Your task to perform on an android device: change the upload size in google photos Image 0: 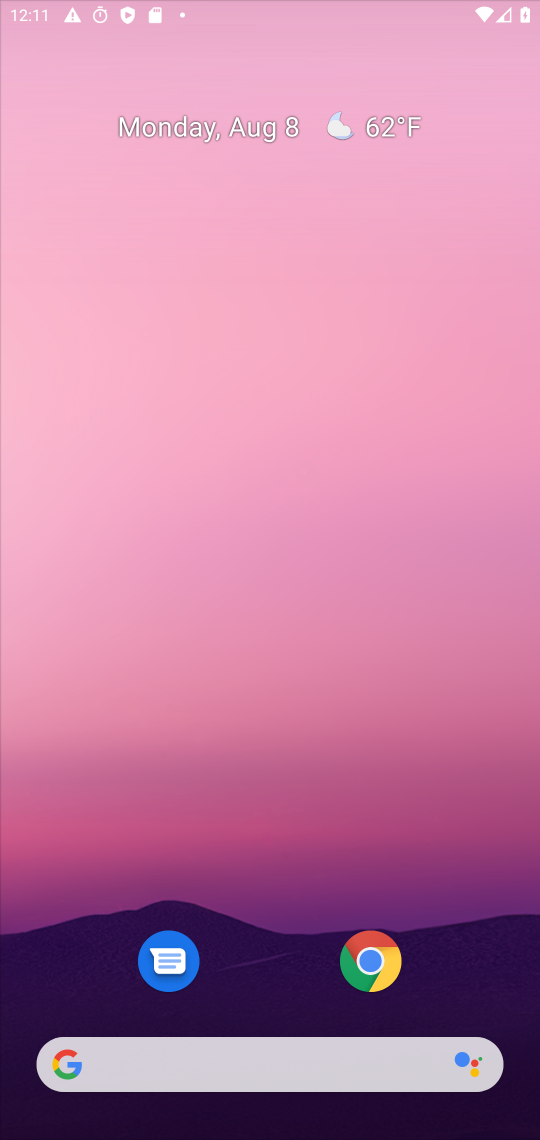
Step 0: press home button
Your task to perform on an android device: change the upload size in google photos Image 1: 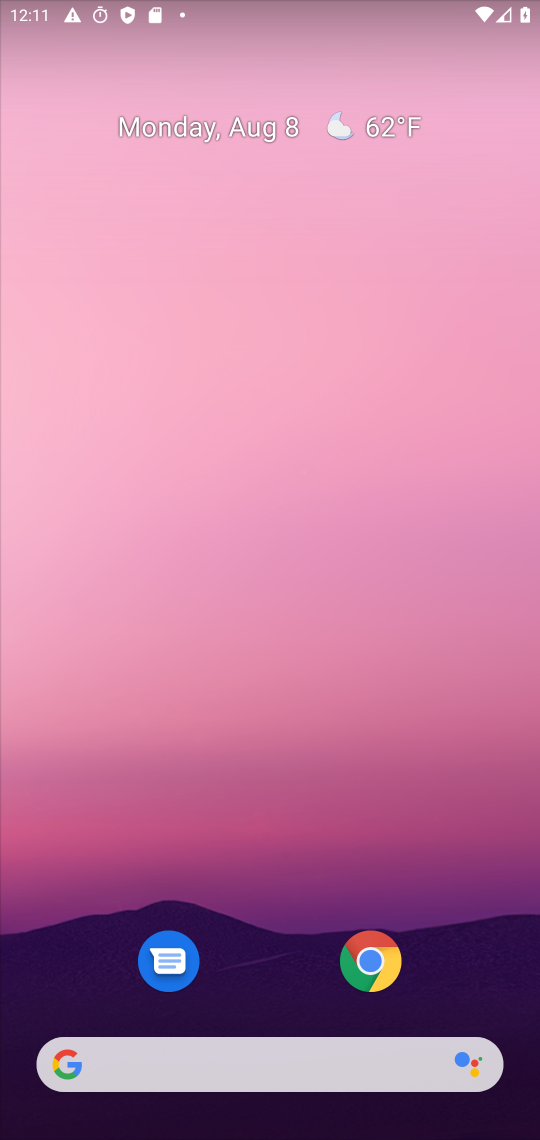
Step 1: drag from (219, 1067) to (317, 241)
Your task to perform on an android device: change the upload size in google photos Image 2: 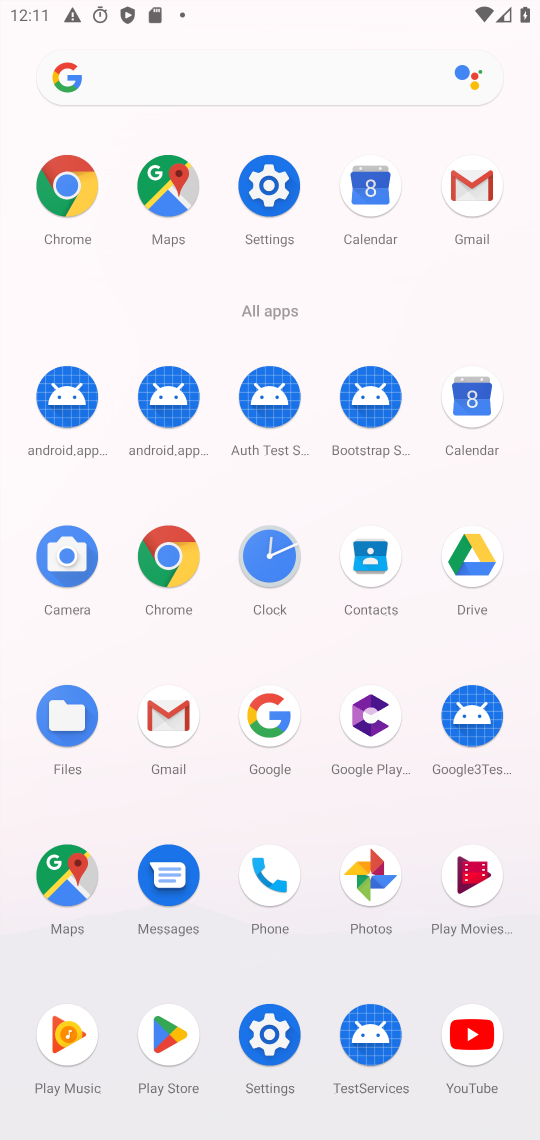
Step 2: click (370, 872)
Your task to perform on an android device: change the upload size in google photos Image 3: 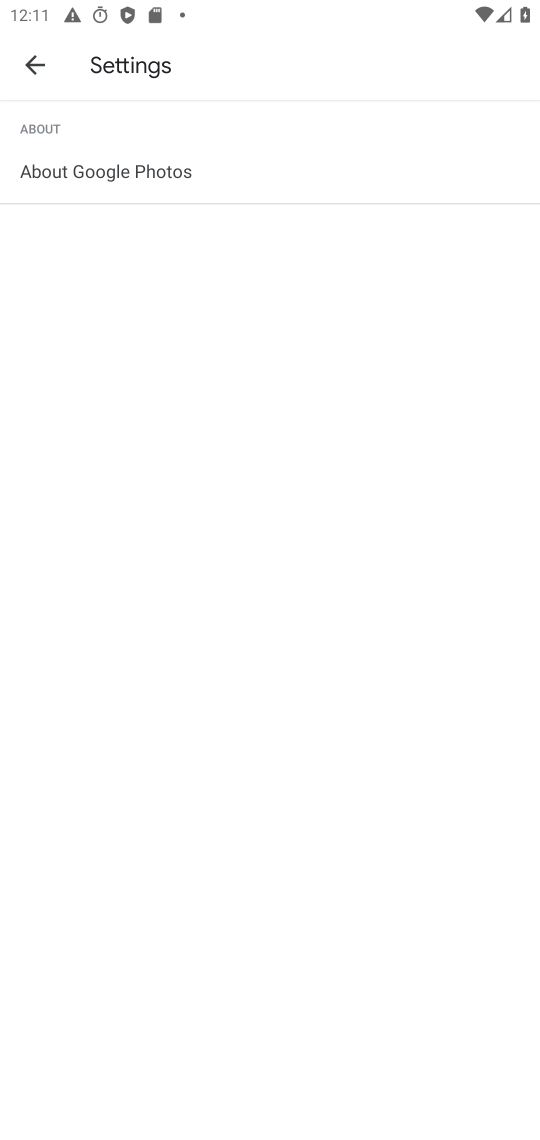
Step 3: press back button
Your task to perform on an android device: change the upload size in google photos Image 4: 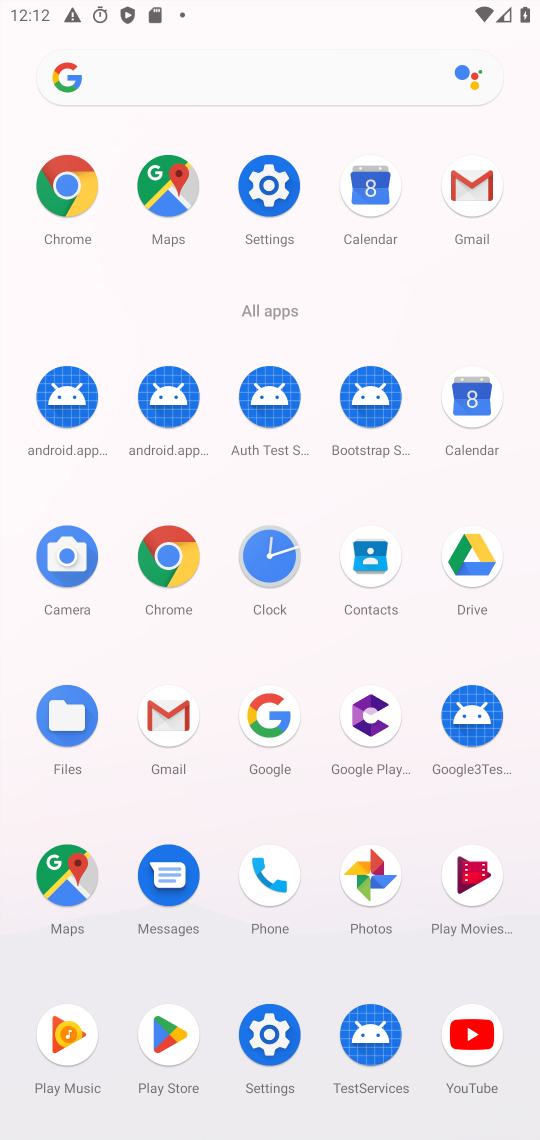
Step 4: click (365, 892)
Your task to perform on an android device: change the upload size in google photos Image 5: 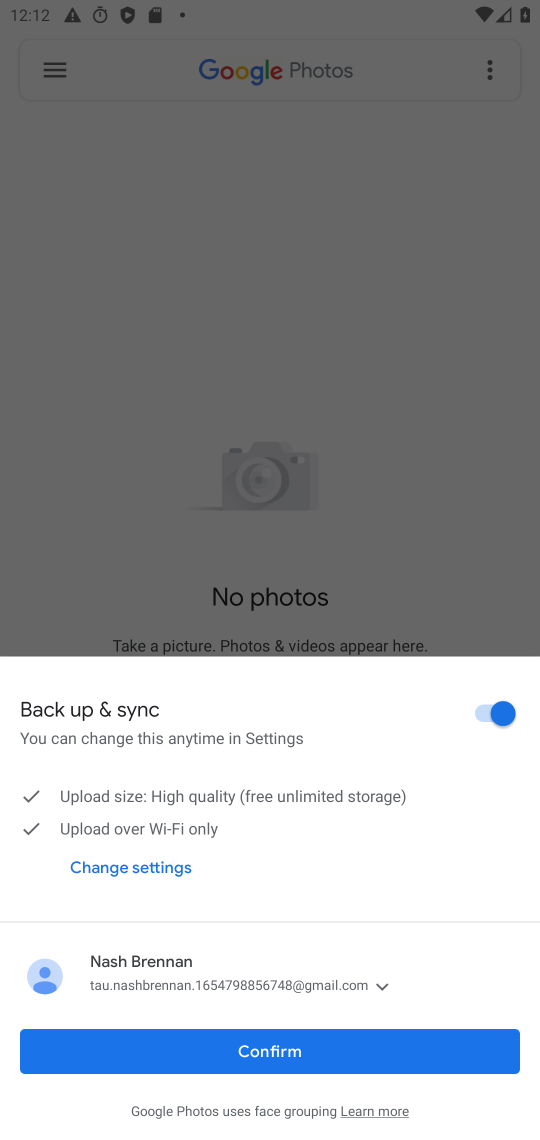
Step 5: click (268, 1041)
Your task to perform on an android device: change the upload size in google photos Image 6: 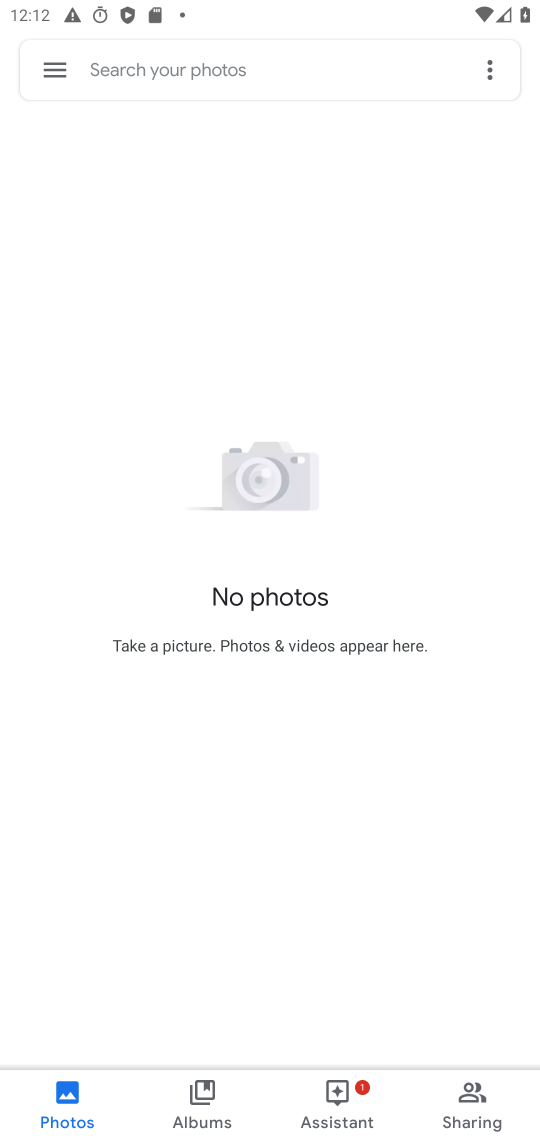
Step 6: click (74, 80)
Your task to perform on an android device: change the upload size in google photos Image 7: 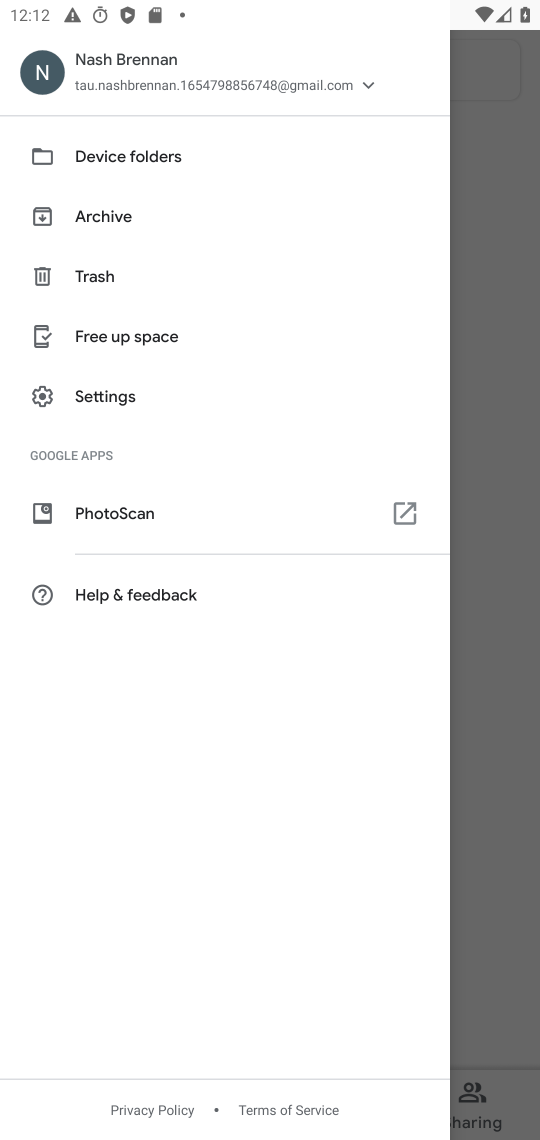
Step 7: click (122, 399)
Your task to perform on an android device: change the upload size in google photos Image 8: 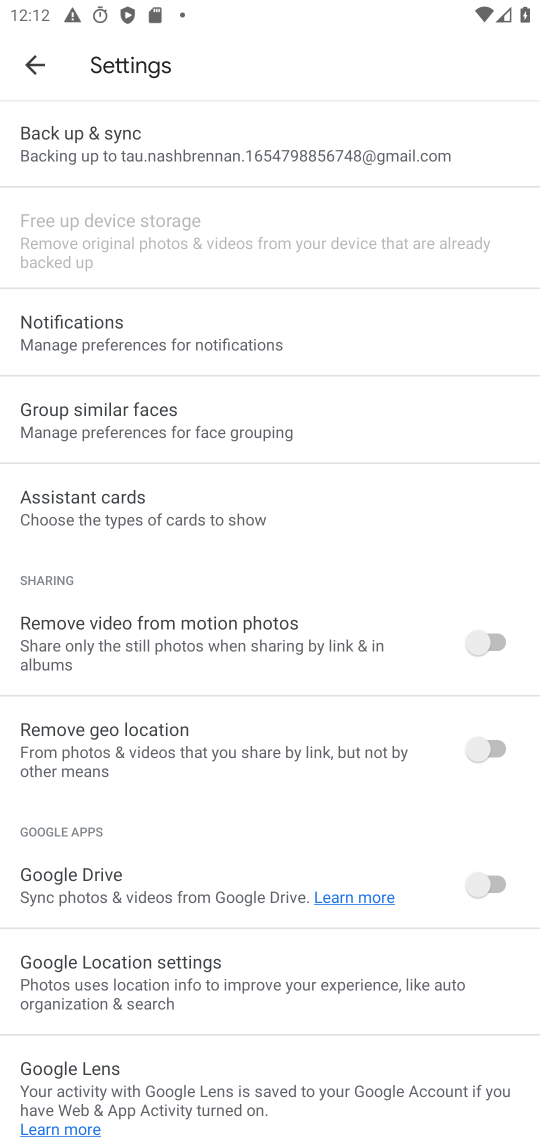
Step 8: click (266, 157)
Your task to perform on an android device: change the upload size in google photos Image 9: 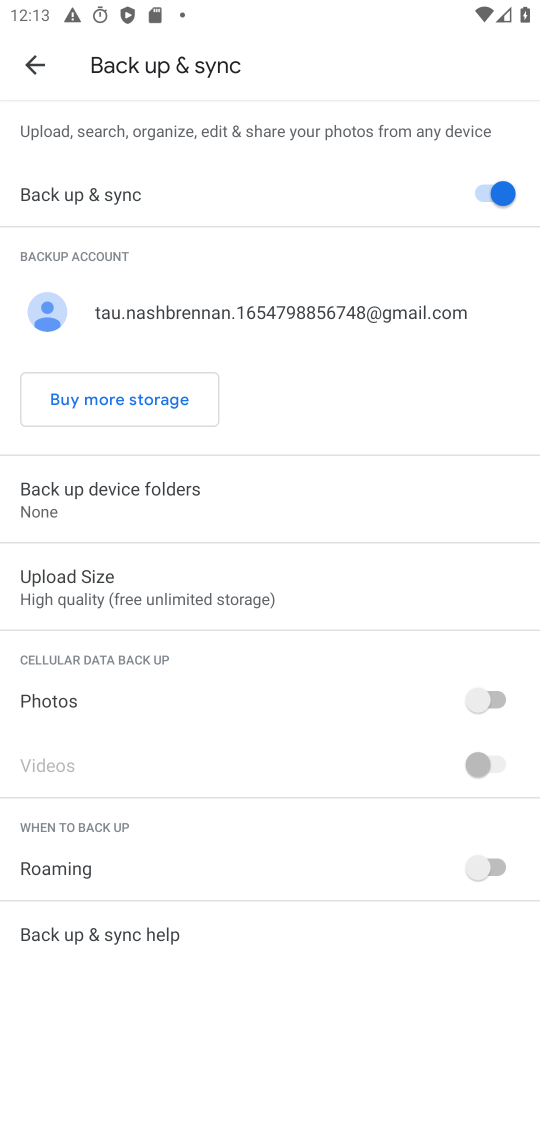
Step 9: click (178, 566)
Your task to perform on an android device: change the upload size in google photos Image 10: 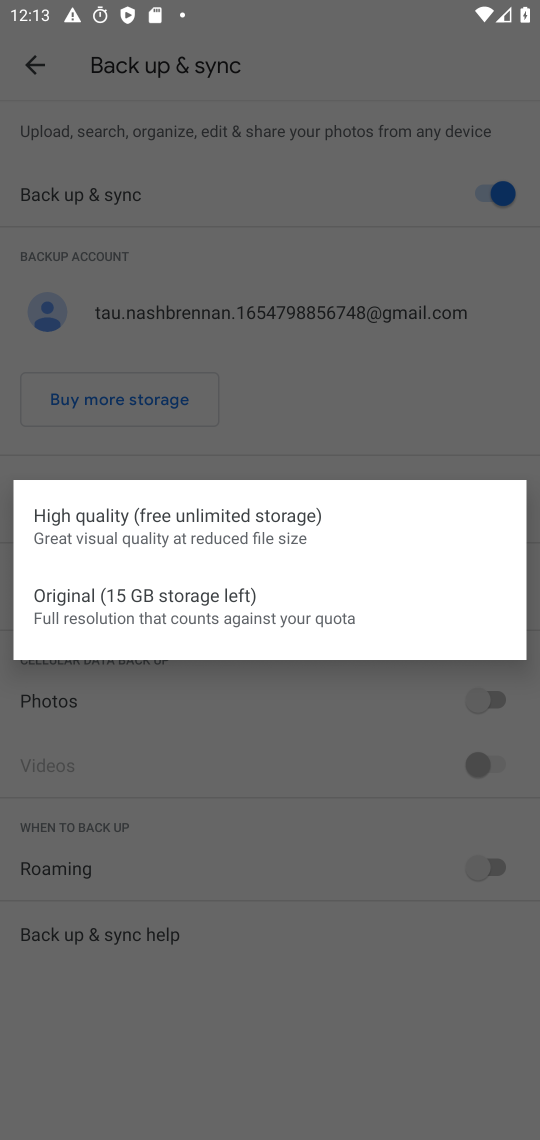
Step 10: click (178, 522)
Your task to perform on an android device: change the upload size in google photos Image 11: 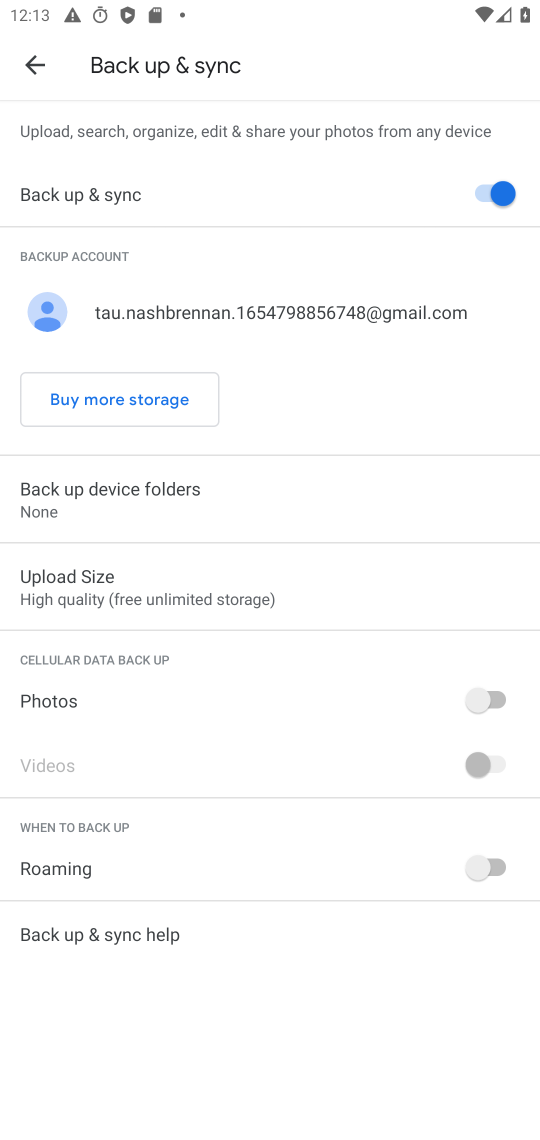
Step 11: task complete